Your task to perform on an android device: uninstall "Cash App" Image 0: 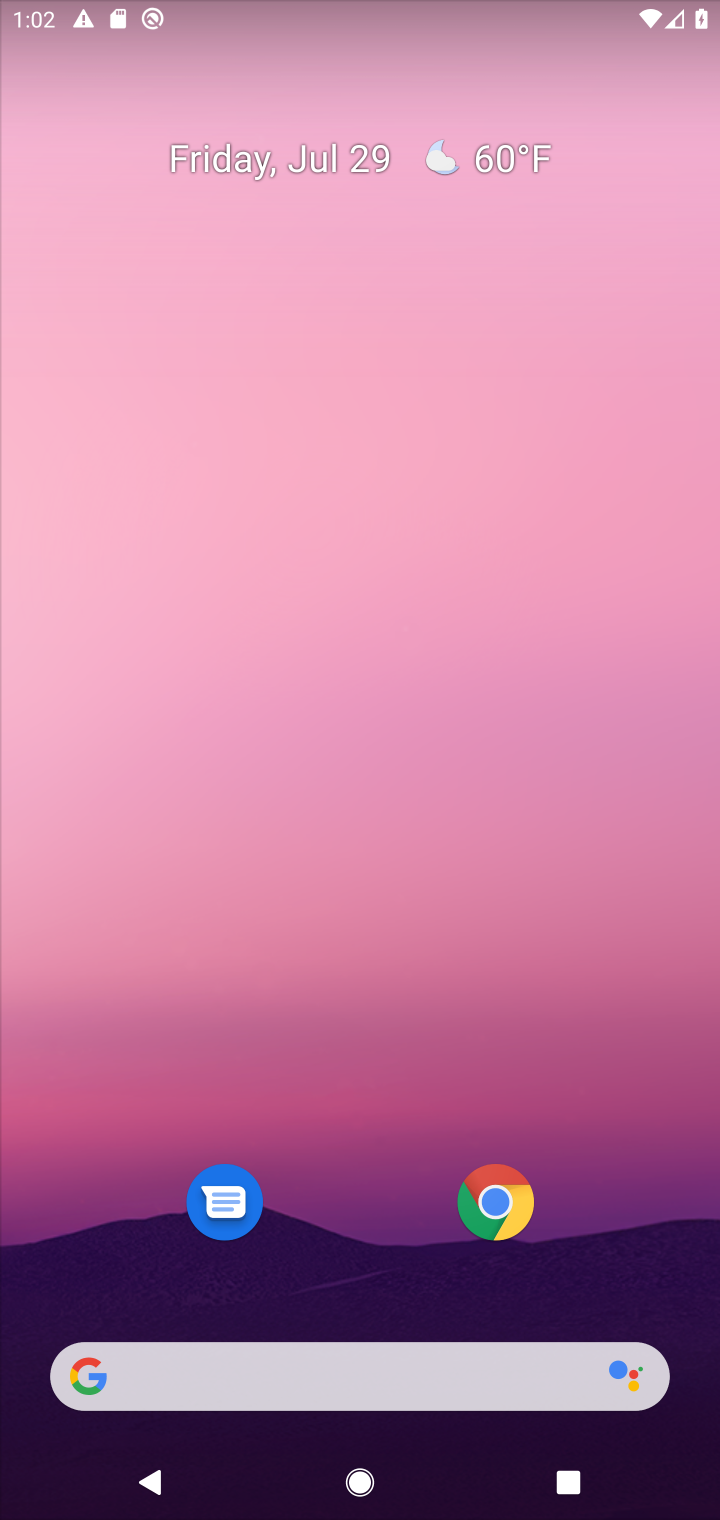
Step 0: click (397, 1381)
Your task to perform on an android device: uninstall "Cash App" Image 1: 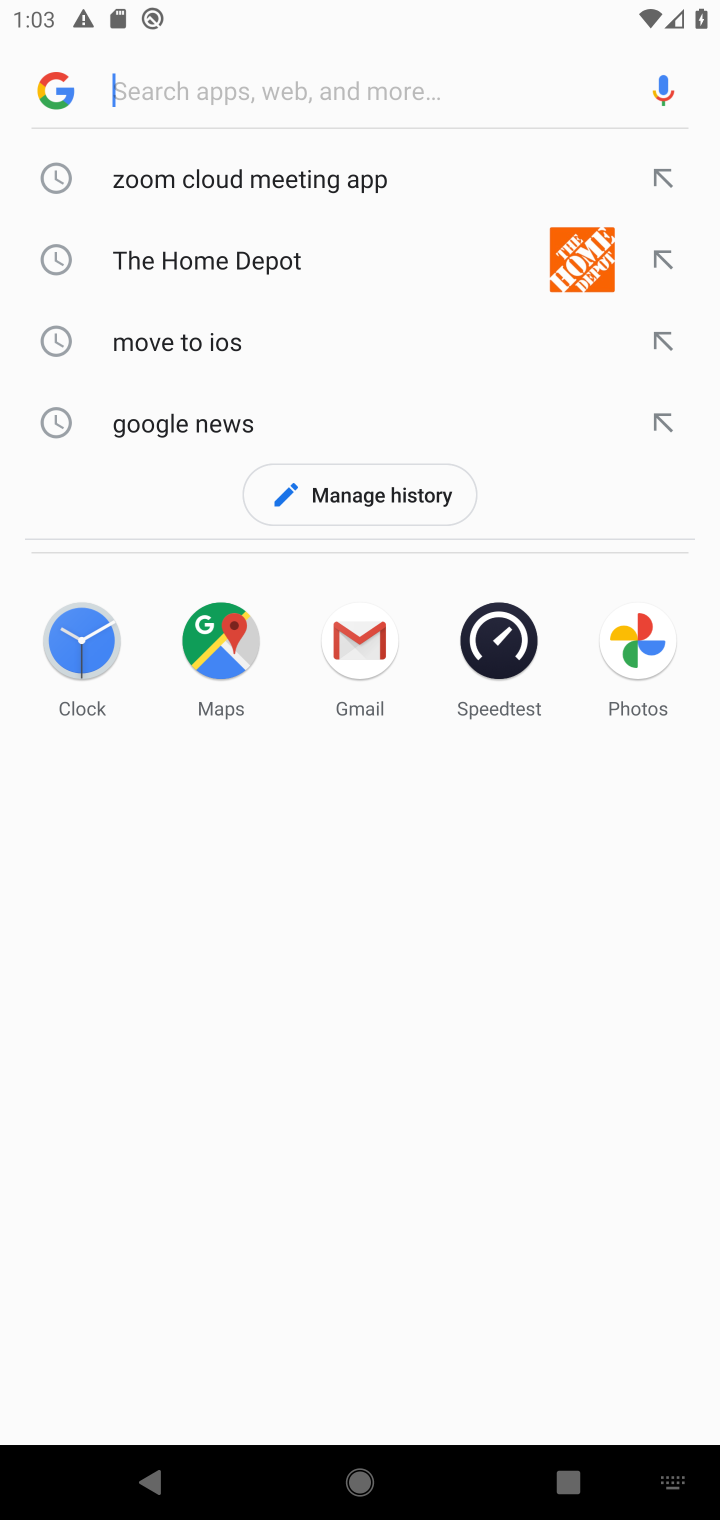
Step 1: type "cash "
Your task to perform on an android device: uninstall "Cash App" Image 2: 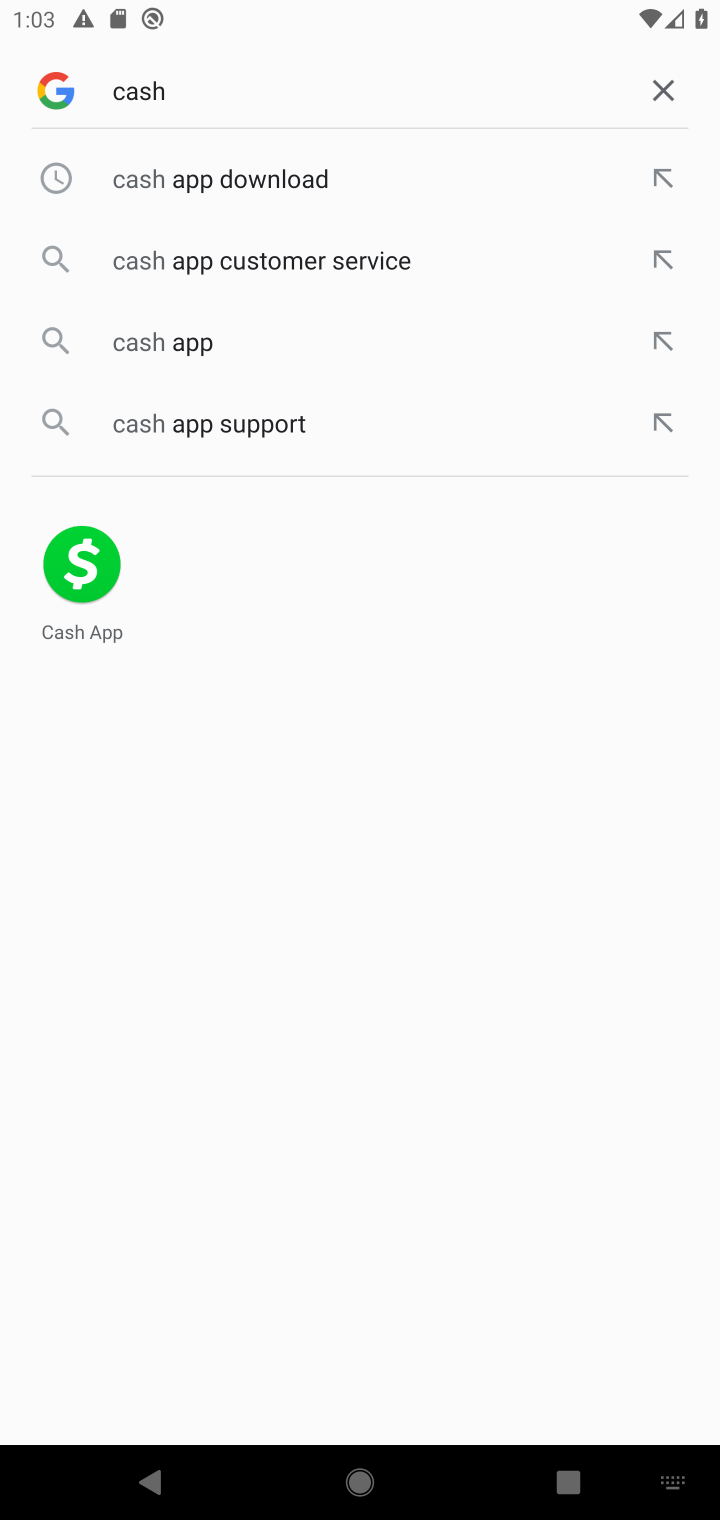
Step 2: click (347, 150)
Your task to perform on an android device: uninstall "Cash App" Image 3: 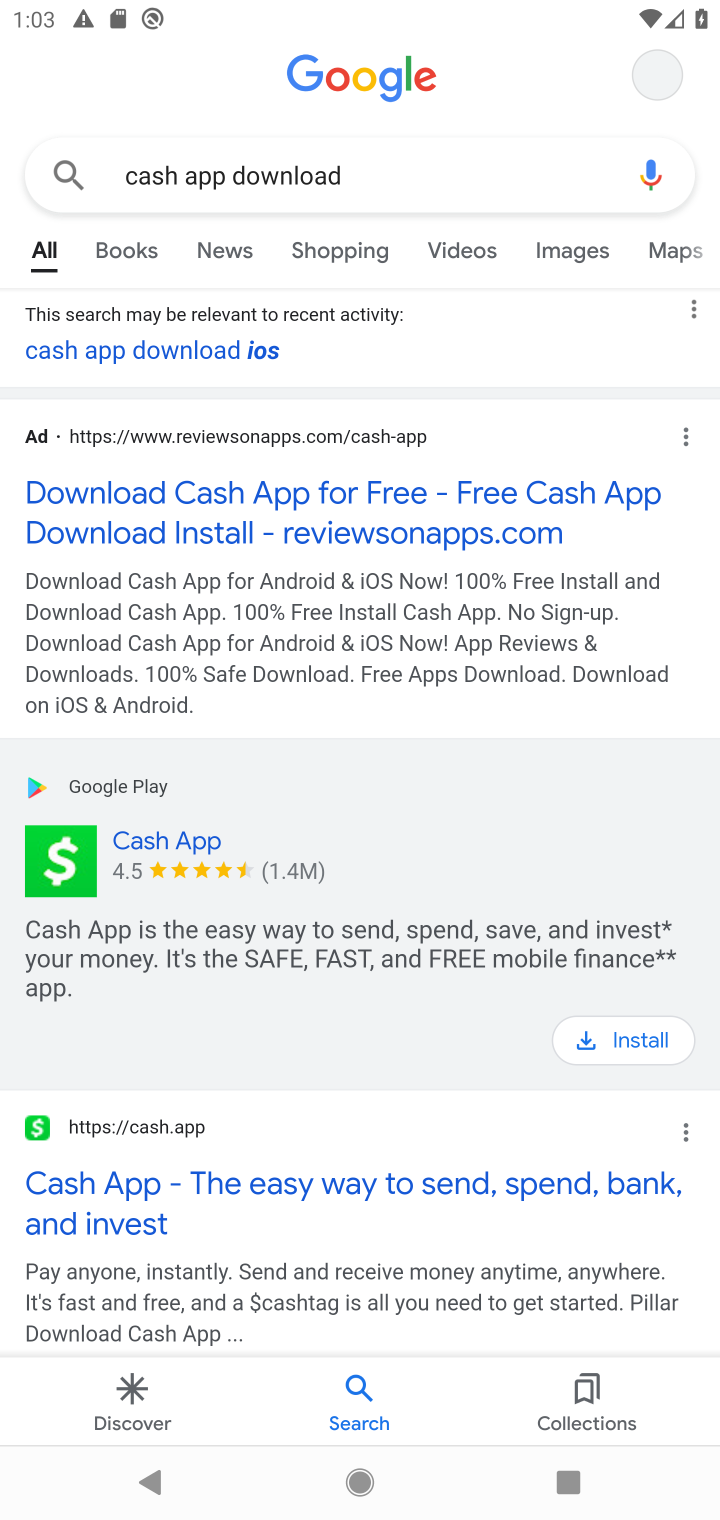
Step 3: task complete